Your task to perform on an android device: Show me recent news Image 0: 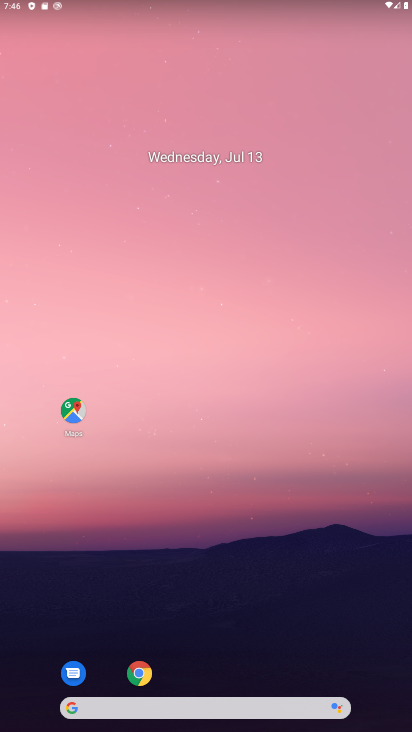
Step 0: drag from (245, 304) to (225, 82)
Your task to perform on an android device: Show me recent news Image 1: 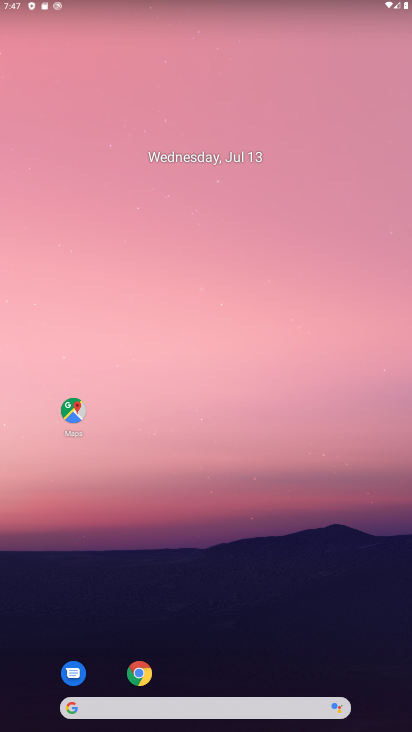
Step 1: drag from (311, 550) to (300, 54)
Your task to perform on an android device: Show me recent news Image 2: 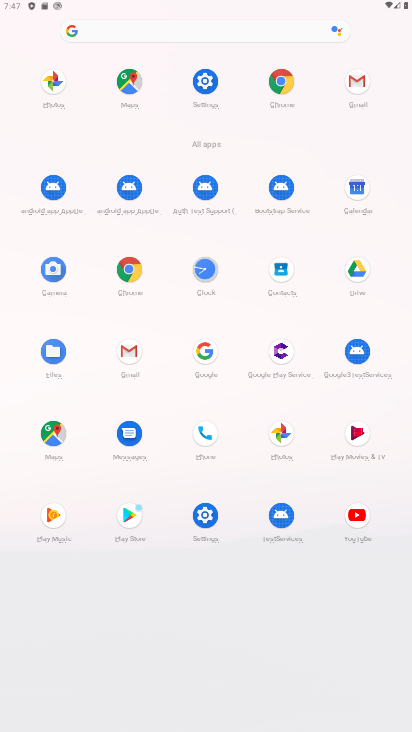
Step 2: click (281, 80)
Your task to perform on an android device: Show me recent news Image 3: 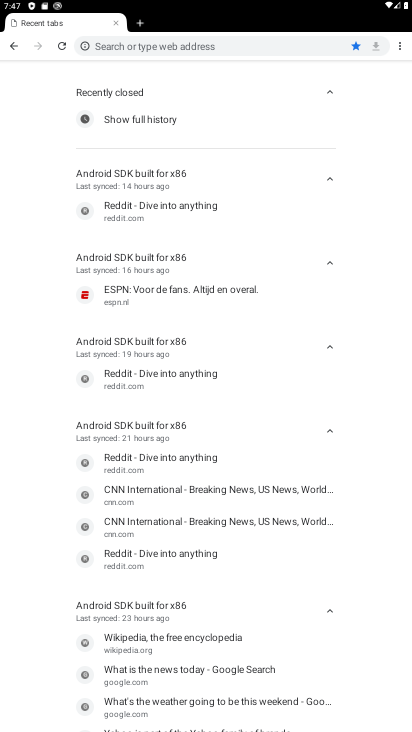
Step 3: click (244, 43)
Your task to perform on an android device: Show me recent news Image 4: 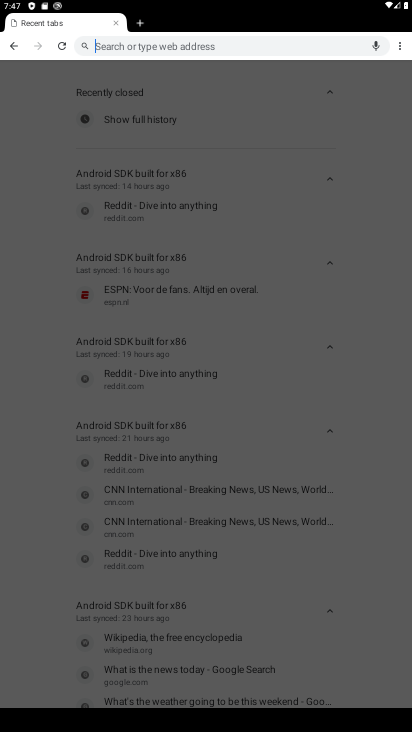
Step 4: type "news"
Your task to perform on an android device: Show me recent news Image 5: 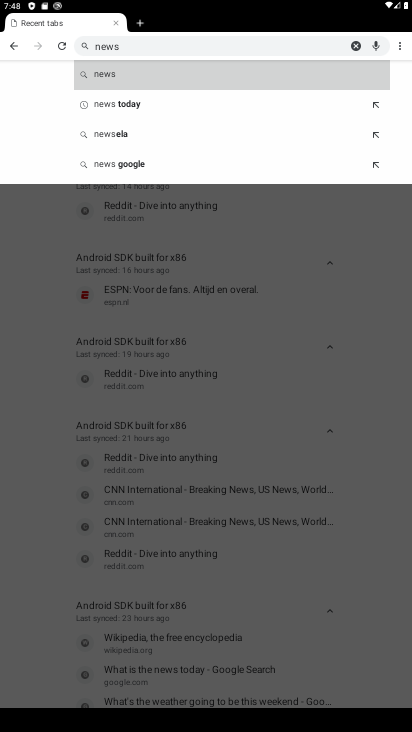
Step 5: click (112, 71)
Your task to perform on an android device: Show me recent news Image 6: 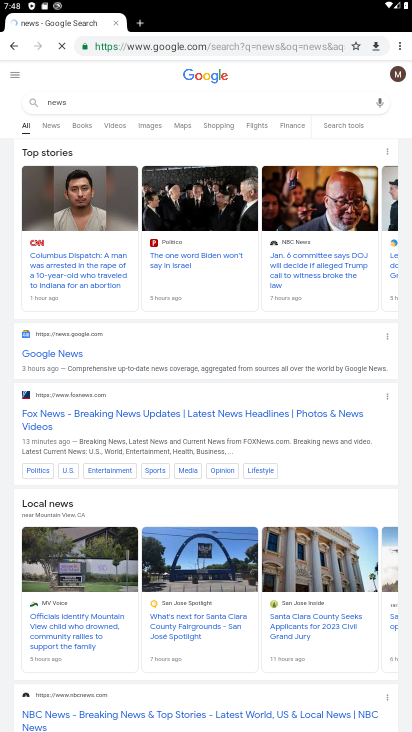
Step 6: click (79, 355)
Your task to perform on an android device: Show me recent news Image 7: 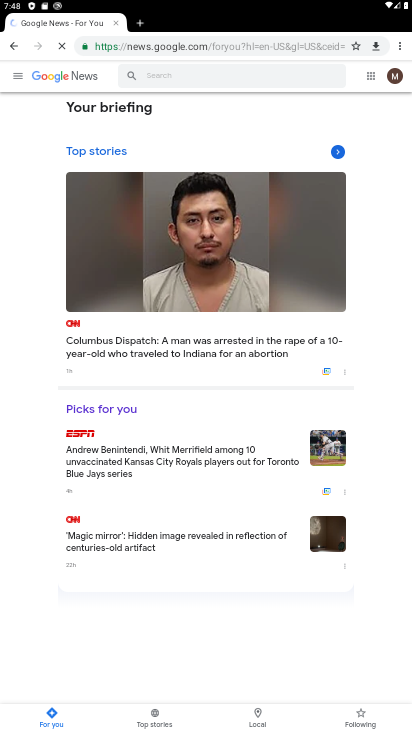
Step 7: task complete